Your task to perform on an android device: open sync settings in chrome Image 0: 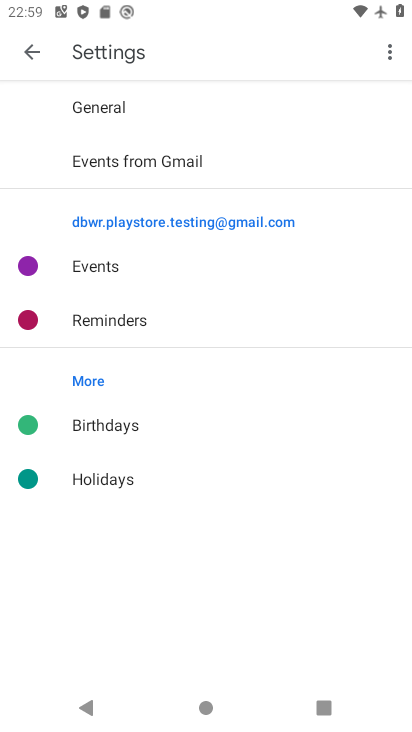
Step 0: press home button
Your task to perform on an android device: open sync settings in chrome Image 1: 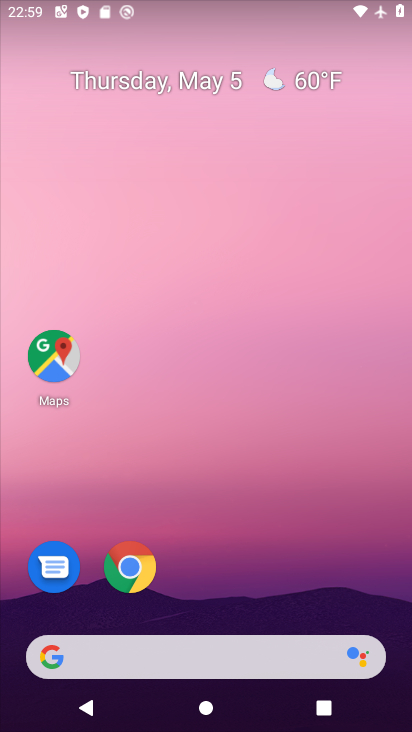
Step 1: click (118, 558)
Your task to perform on an android device: open sync settings in chrome Image 2: 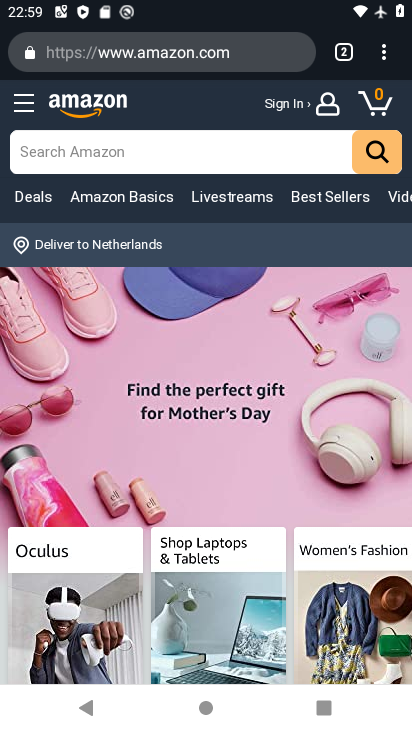
Step 2: click (382, 46)
Your task to perform on an android device: open sync settings in chrome Image 3: 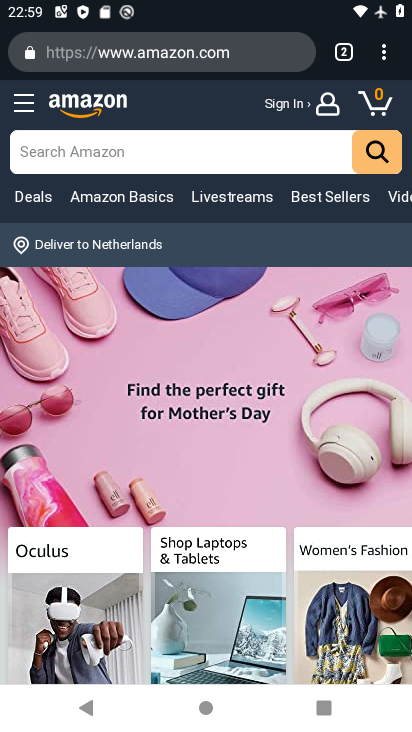
Step 3: click (384, 50)
Your task to perform on an android device: open sync settings in chrome Image 4: 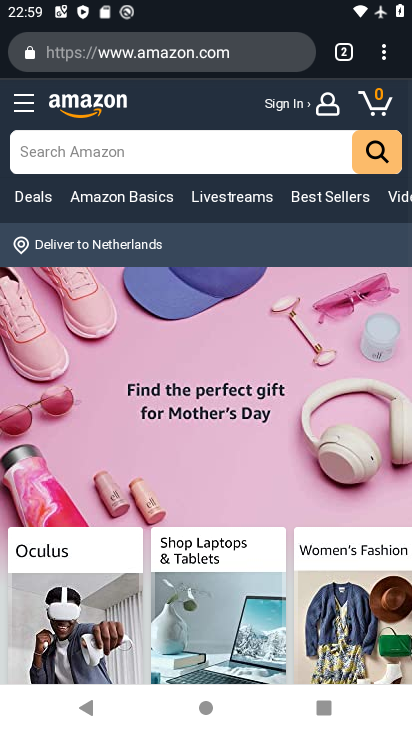
Step 4: drag from (384, 50) to (198, 615)
Your task to perform on an android device: open sync settings in chrome Image 5: 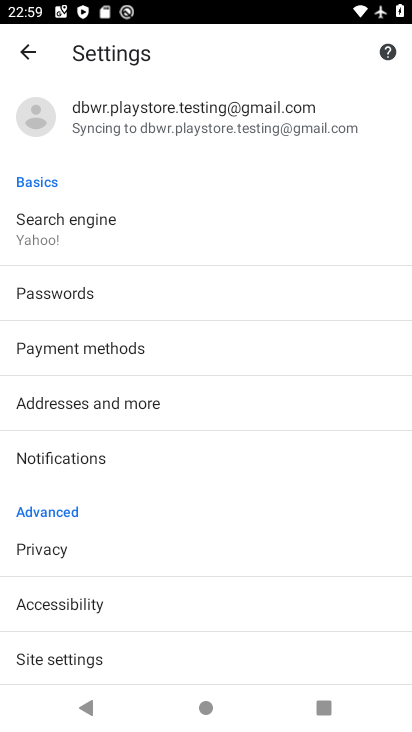
Step 5: drag from (153, 624) to (176, 382)
Your task to perform on an android device: open sync settings in chrome Image 6: 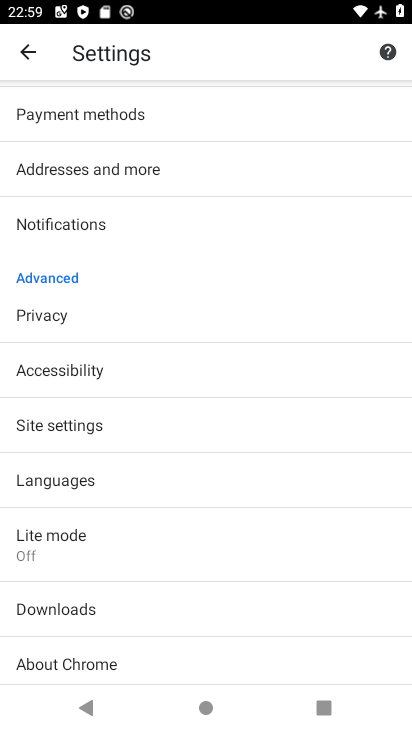
Step 6: drag from (149, 577) to (170, 354)
Your task to perform on an android device: open sync settings in chrome Image 7: 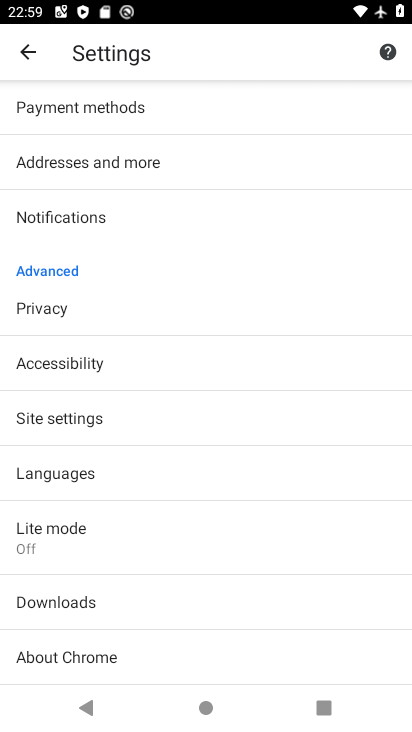
Step 7: drag from (172, 217) to (192, 670)
Your task to perform on an android device: open sync settings in chrome Image 8: 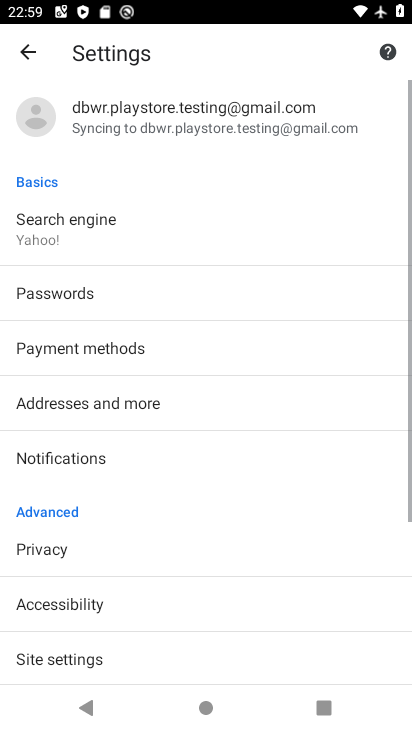
Step 8: click (201, 111)
Your task to perform on an android device: open sync settings in chrome Image 9: 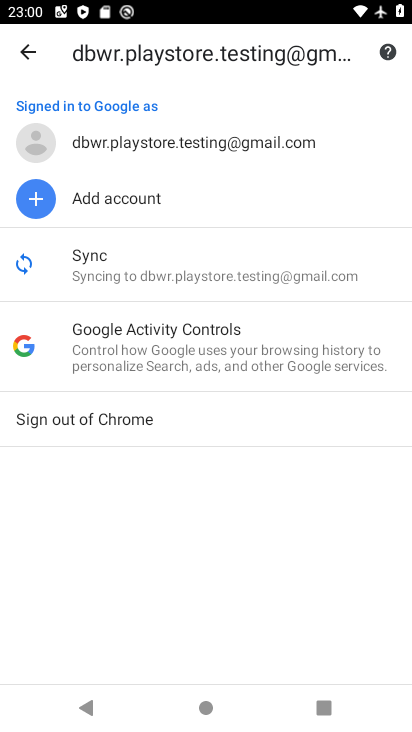
Step 9: click (140, 262)
Your task to perform on an android device: open sync settings in chrome Image 10: 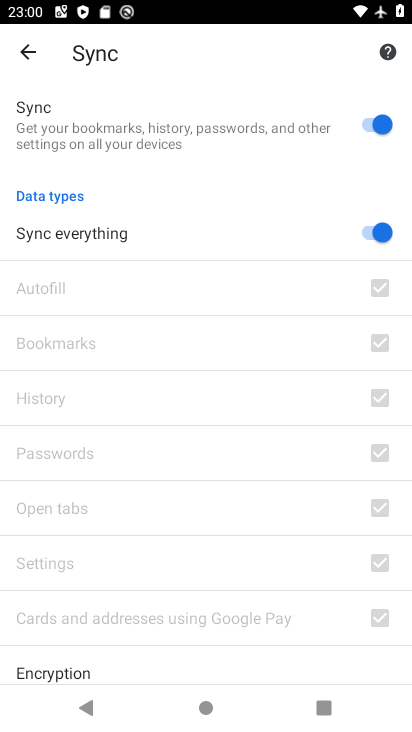
Step 10: task complete